Your task to perform on an android device: change keyboard looks Image 0: 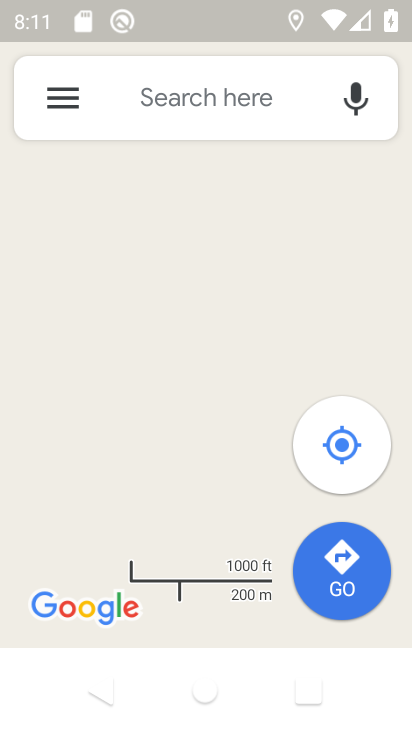
Step 0: press home button
Your task to perform on an android device: change keyboard looks Image 1: 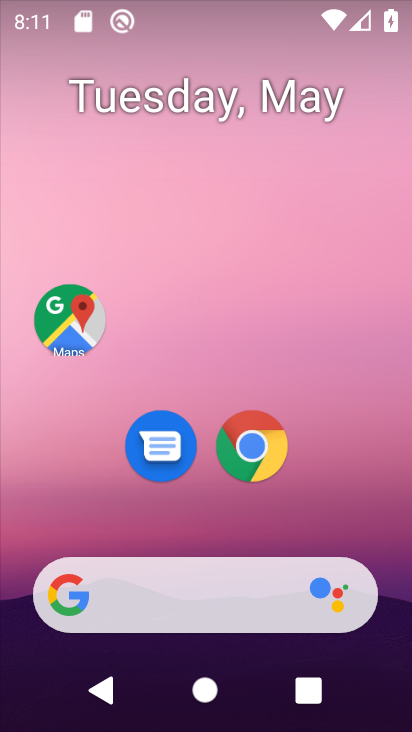
Step 1: drag from (220, 520) to (315, 5)
Your task to perform on an android device: change keyboard looks Image 2: 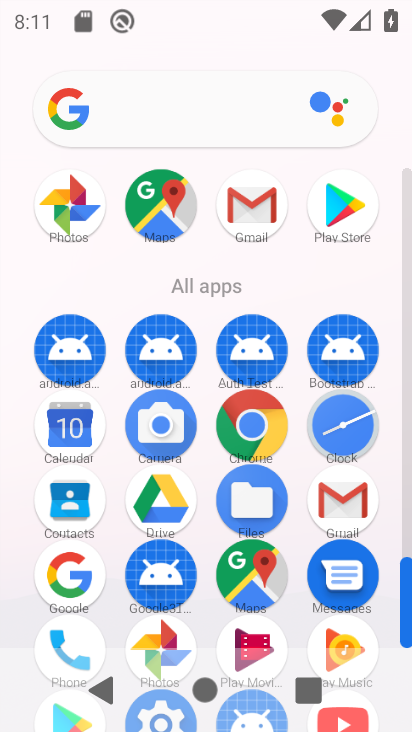
Step 2: drag from (201, 627) to (126, 106)
Your task to perform on an android device: change keyboard looks Image 3: 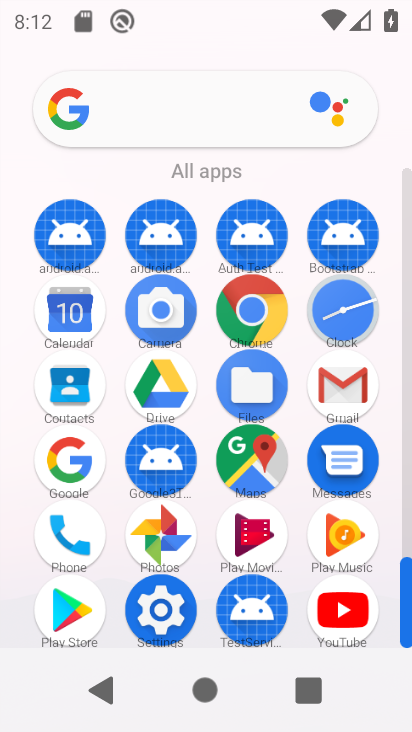
Step 3: click (151, 603)
Your task to perform on an android device: change keyboard looks Image 4: 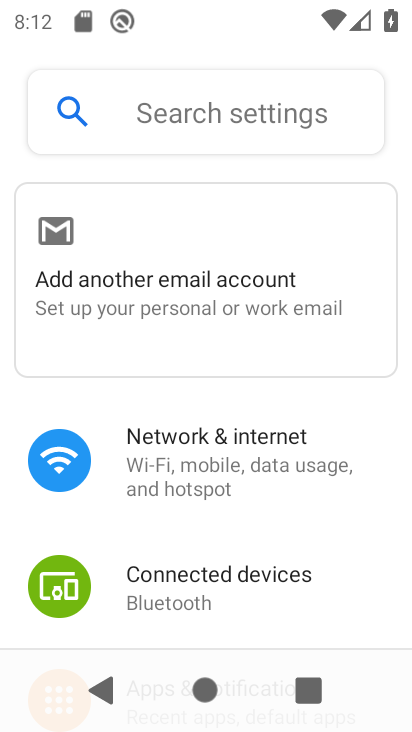
Step 4: drag from (227, 538) to (10, 192)
Your task to perform on an android device: change keyboard looks Image 5: 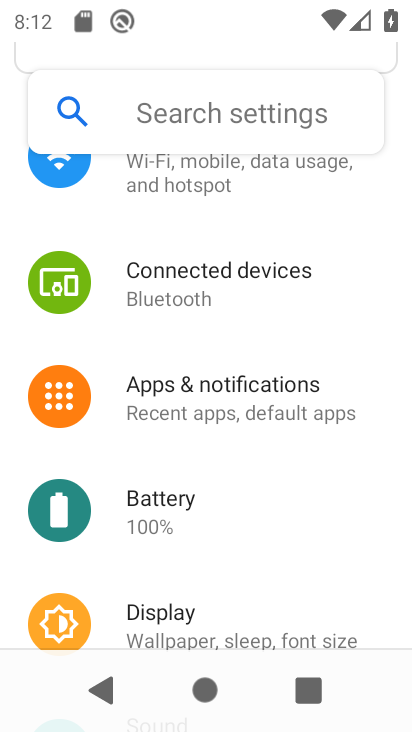
Step 5: drag from (197, 529) to (180, 1)
Your task to perform on an android device: change keyboard looks Image 6: 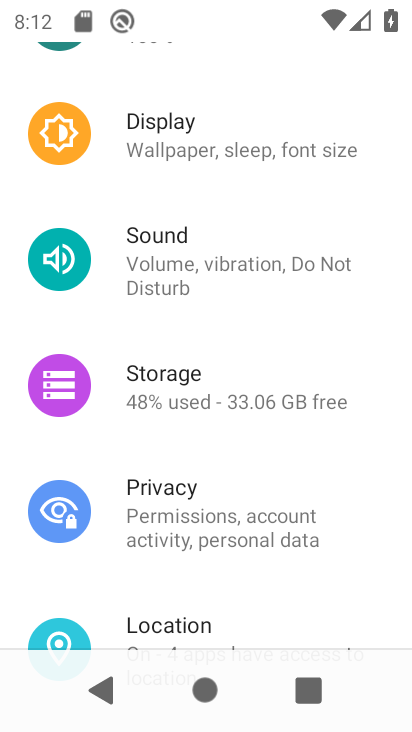
Step 6: drag from (259, 558) to (237, 2)
Your task to perform on an android device: change keyboard looks Image 7: 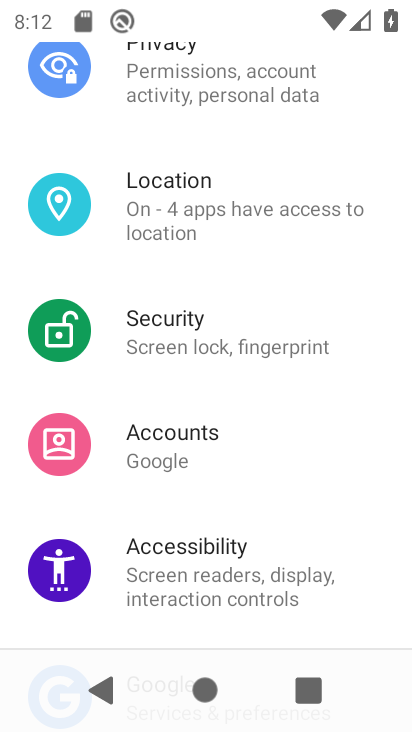
Step 7: drag from (225, 570) to (188, 95)
Your task to perform on an android device: change keyboard looks Image 8: 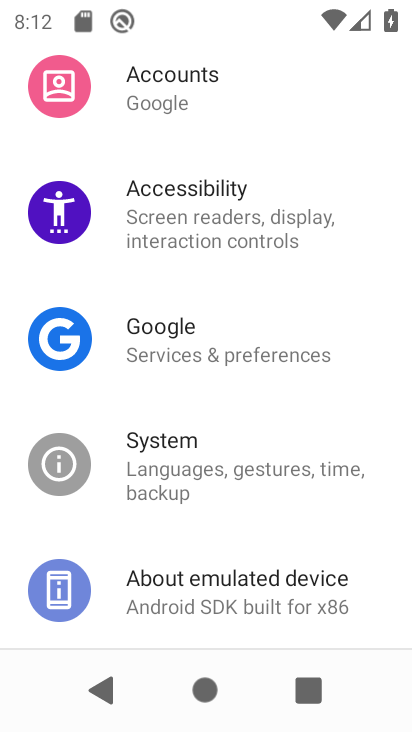
Step 8: click (192, 458)
Your task to perform on an android device: change keyboard looks Image 9: 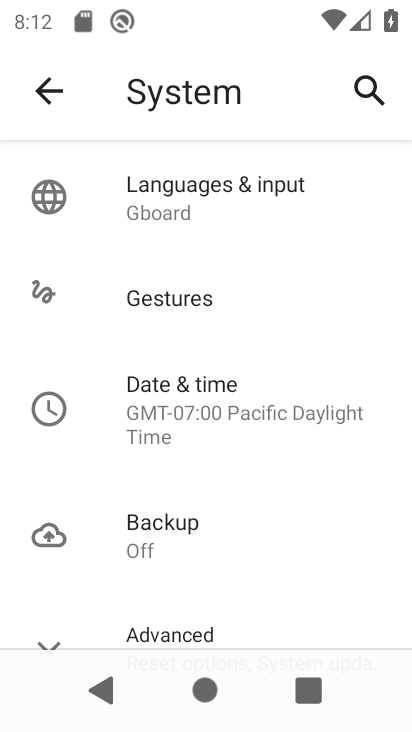
Step 9: click (196, 220)
Your task to perform on an android device: change keyboard looks Image 10: 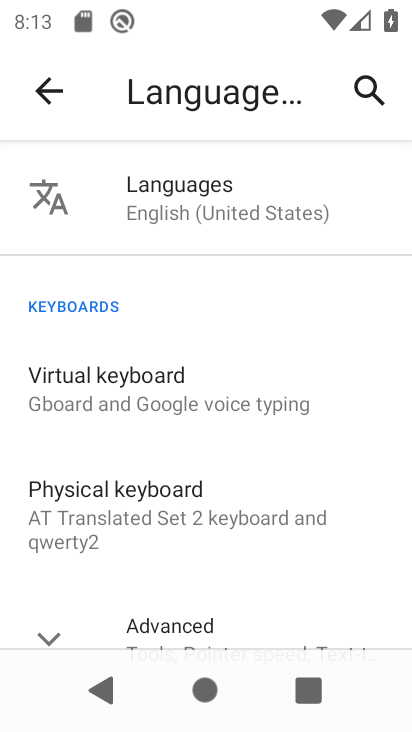
Step 10: click (158, 378)
Your task to perform on an android device: change keyboard looks Image 11: 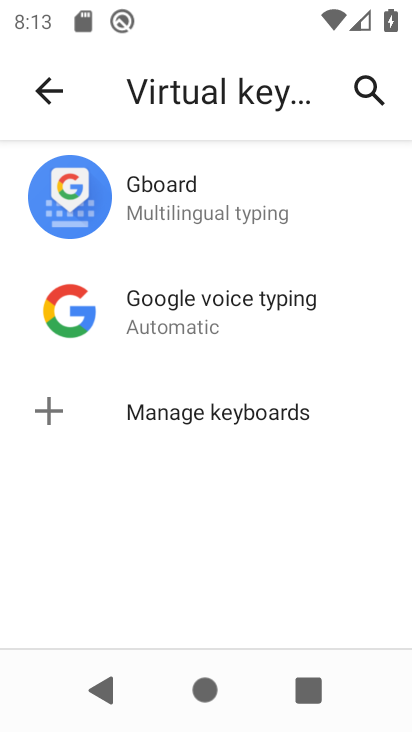
Step 11: click (188, 190)
Your task to perform on an android device: change keyboard looks Image 12: 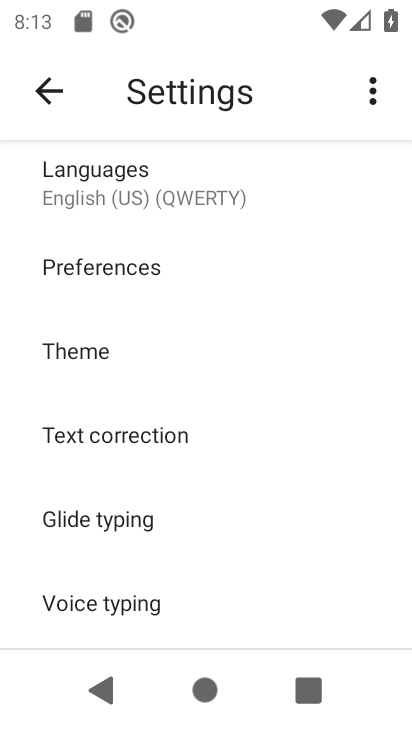
Step 12: click (113, 205)
Your task to perform on an android device: change keyboard looks Image 13: 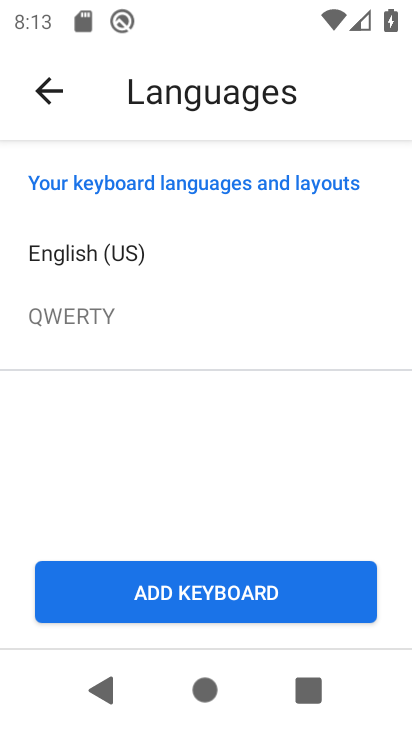
Step 13: click (35, 92)
Your task to perform on an android device: change keyboard looks Image 14: 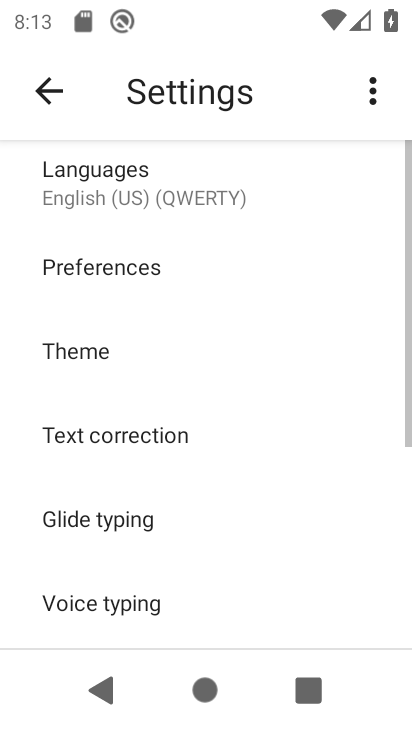
Step 14: click (91, 367)
Your task to perform on an android device: change keyboard looks Image 15: 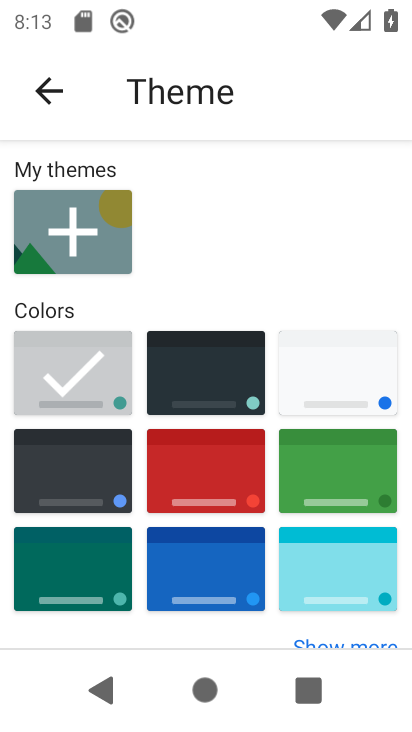
Step 15: task complete